Your task to perform on an android device: open app "Skype" (install if not already installed) Image 0: 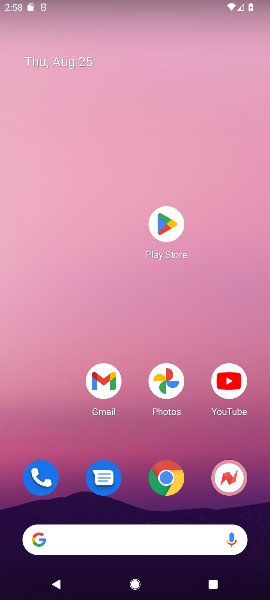
Step 0: click (168, 219)
Your task to perform on an android device: open app "Skype" (install if not already installed) Image 1: 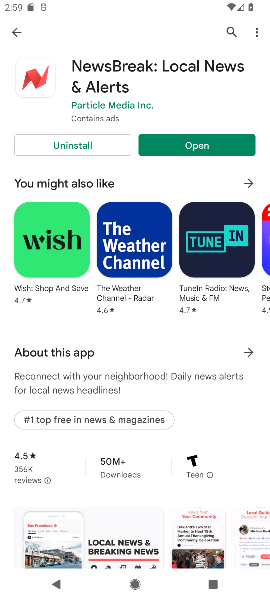
Step 1: click (231, 31)
Your task to perform on an android device: open app "Skype" (install if not already installed) Image 2: 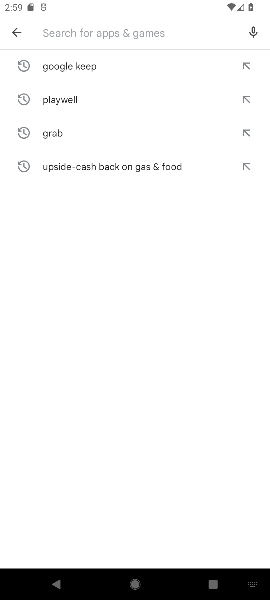
Step 2: type "Skype"
Your task to perform on an android device: open app "Skype" (install if not already installed) Image 3: 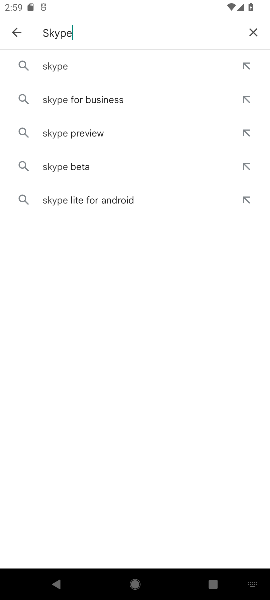
Step 3: click (50, 64)
Your task to perform on an android device: open app "Skype" (install if not already installed) Image 4: 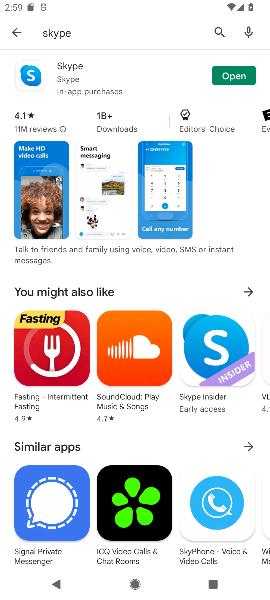
Step 4: click (241, 78)
Your task to perform on an android device: open app "Skype" (install if not already installed) Image 5: 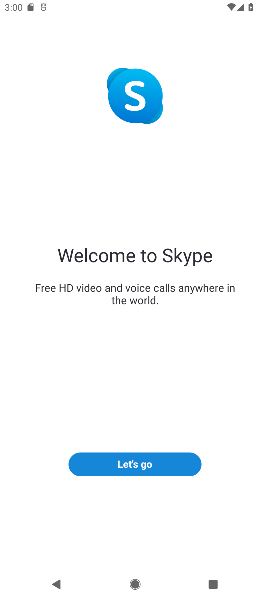
Step 5: task complete